Your task to perform on an android device: Show the shopping cart on amazon.com. Add "usb-c to usb-b" to the cart on amazon.com Image 0: 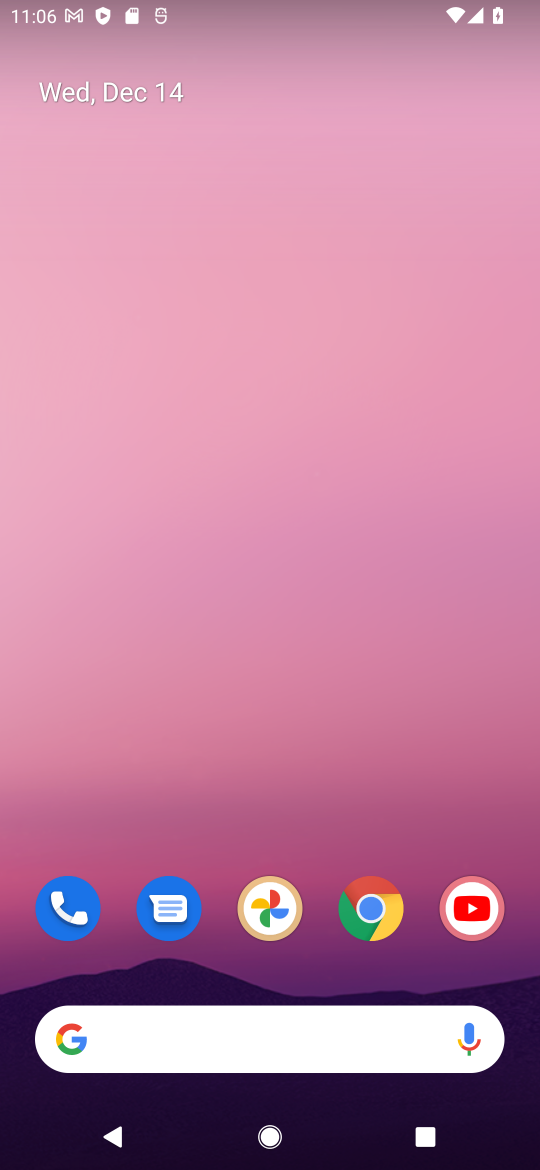
Step 0: click (362, 928)
Your task to perform on an android device: Show the shopping cart on amazon.com. Add "usb-c to usb-b" to the cart on amazon.com Image 1: 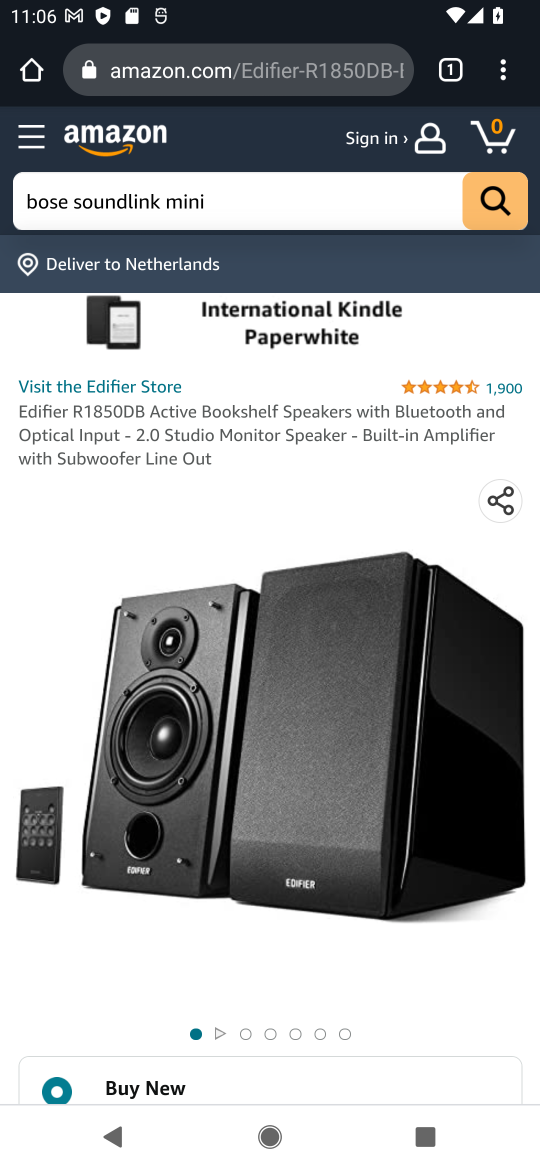
Step 1: click (498, 142)
Your task to perform on an android device: Show the shopping cart on amazon.com. Add "usb-c to usb-b" to the cart on amazon.com Image 2: 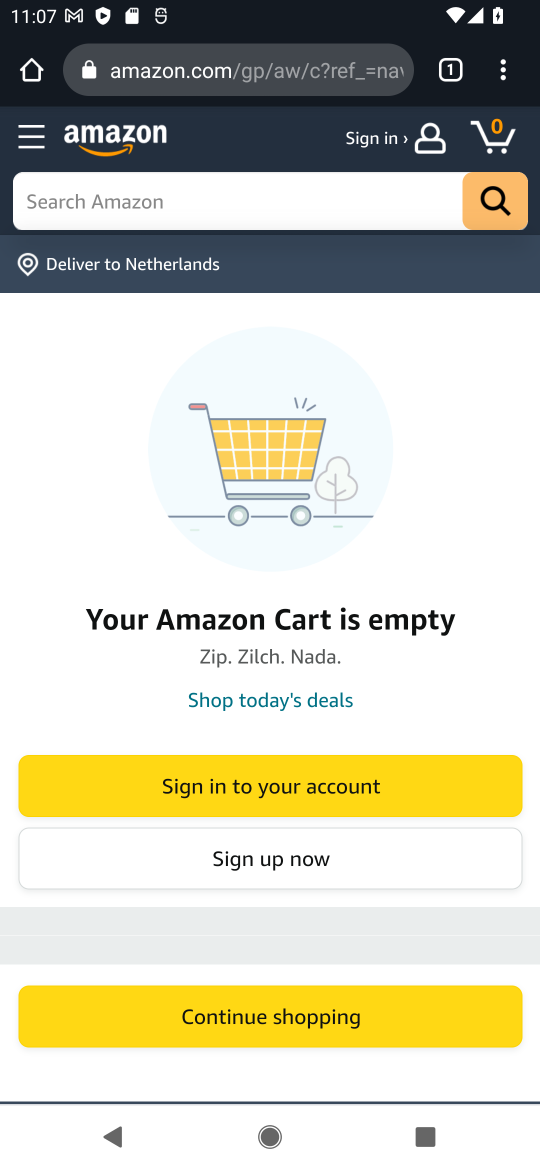
Step 2: click (117, 217)
Your task to perform on an android device: Show the shopping cart on amazon.com. Add "usb-c to usb-b" to the cart on amazon.com Image 3: 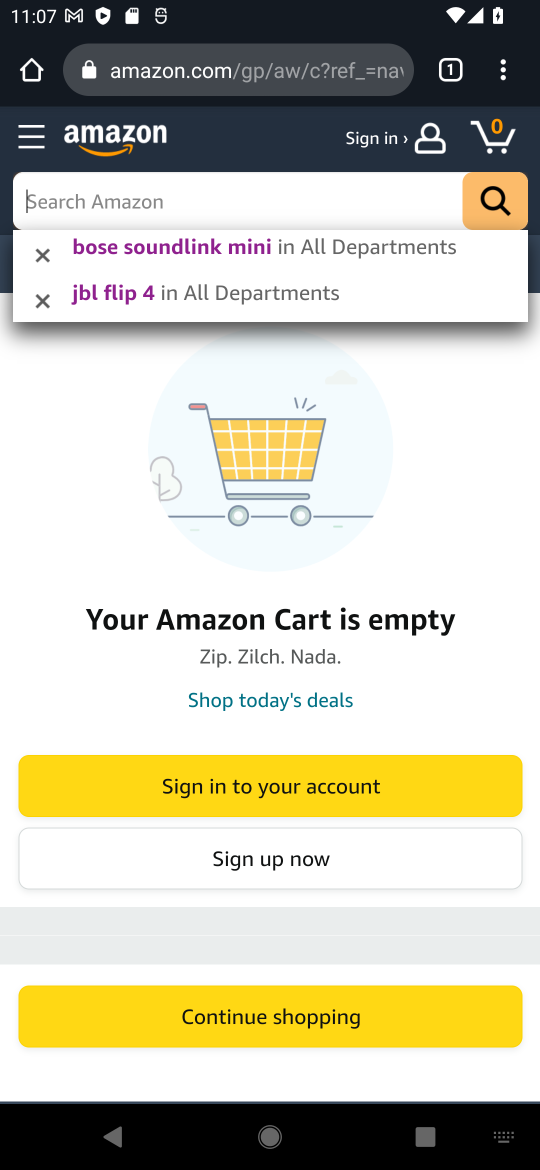
Step 3: type "usb-c to usb-b"
Your task to perform on an android device: Show the shopping cart on amazon.com. Add "usb-c to usb-b" to the cart on amazon.com Image 4: 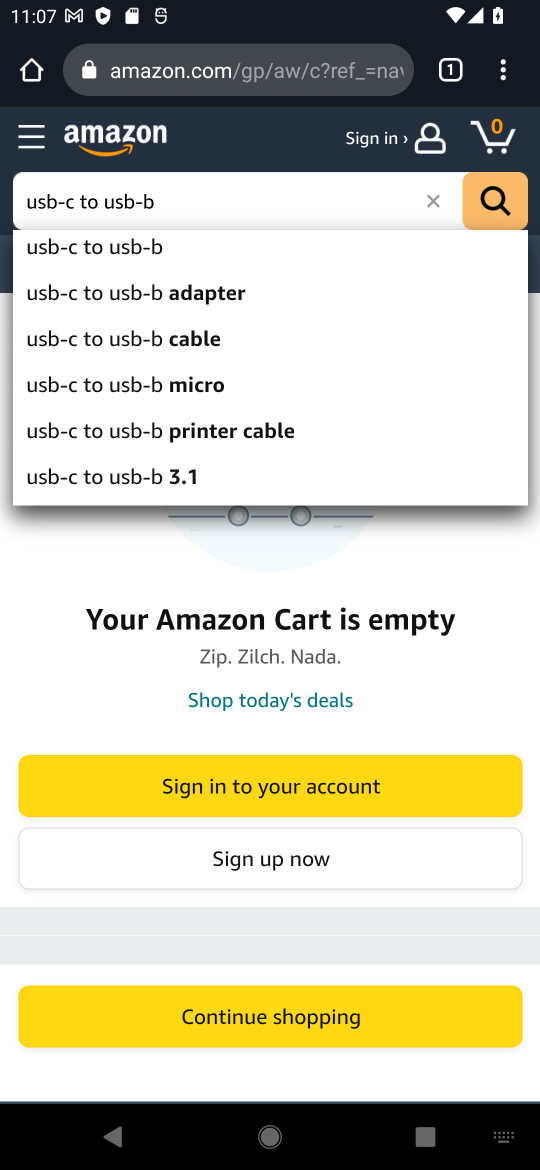
Step 4: click (47, 256)
Your task to perform on an android device: Show the shopping cart on amazon.com. Add "usb-c to usb-b" to the cart on amazon.com Image 5: 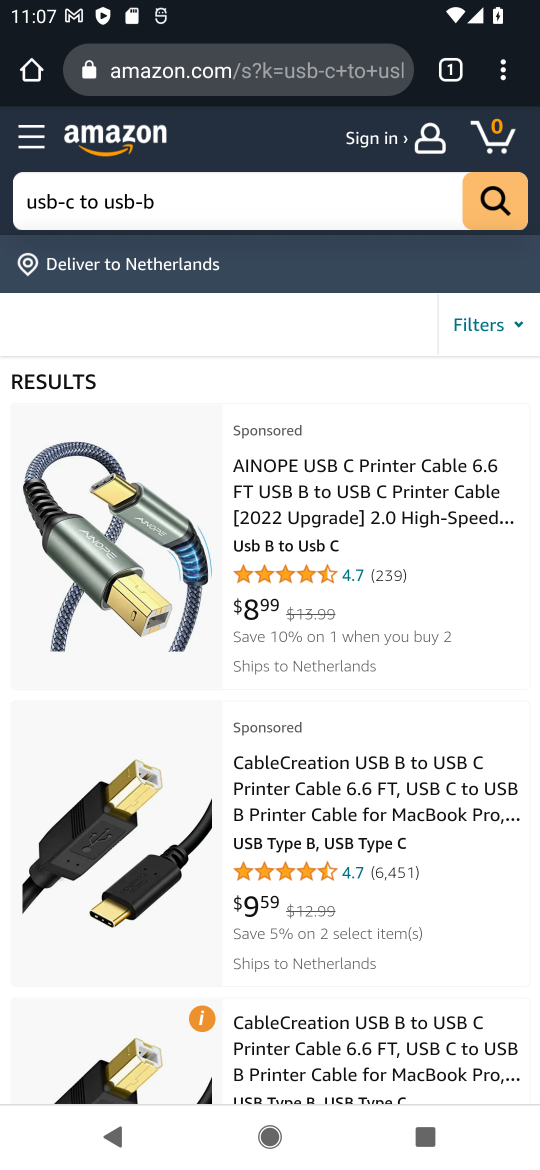
Step 5: drag from (67, 877) to (87, 572)
Your task to perform on an android device: Show the shopping cart on amazon.com. Add "usb-c to usb-b" to the cart on amazon.com Image 6: 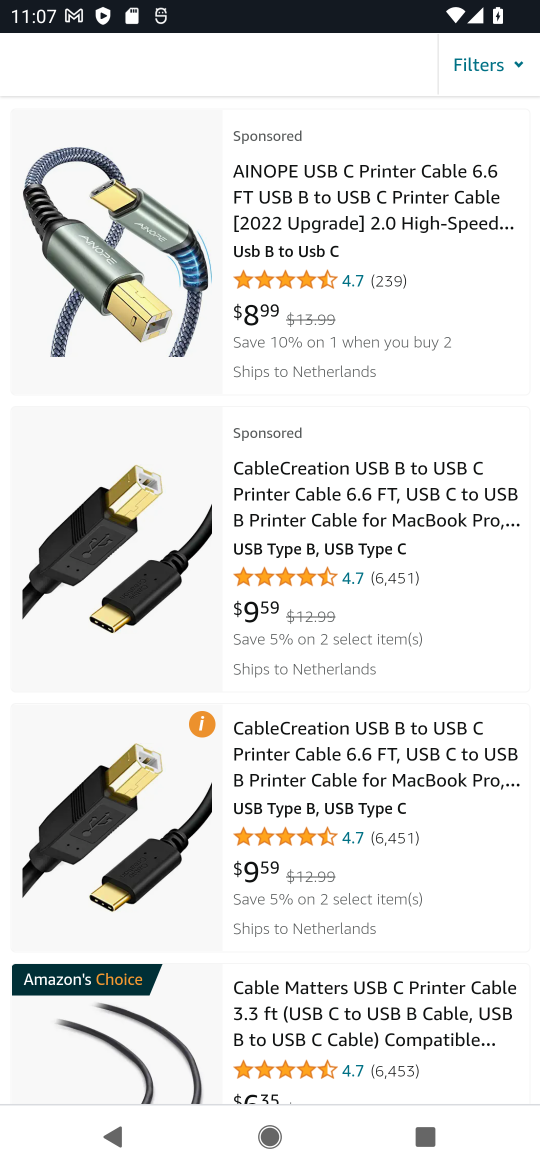
Step 6: drag from (120, 882) to (117, 550)
Your task to perform on an android device: Show the shopping cart on amazon.com. Add "usb-c to usb-b" to the cart on amazon.com Image 7: 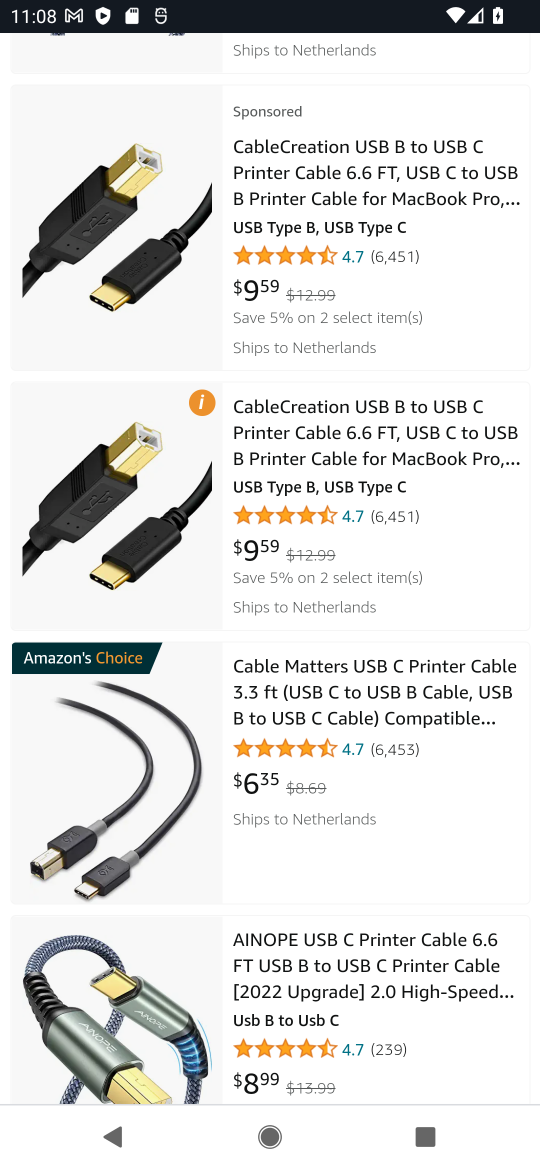
Step 7: click (310, 720)
Your task to perform on an android device: Show the shopping cart on amazon.com. Add "usb-c to usb-b" to the cart on amazon.com Image 8: 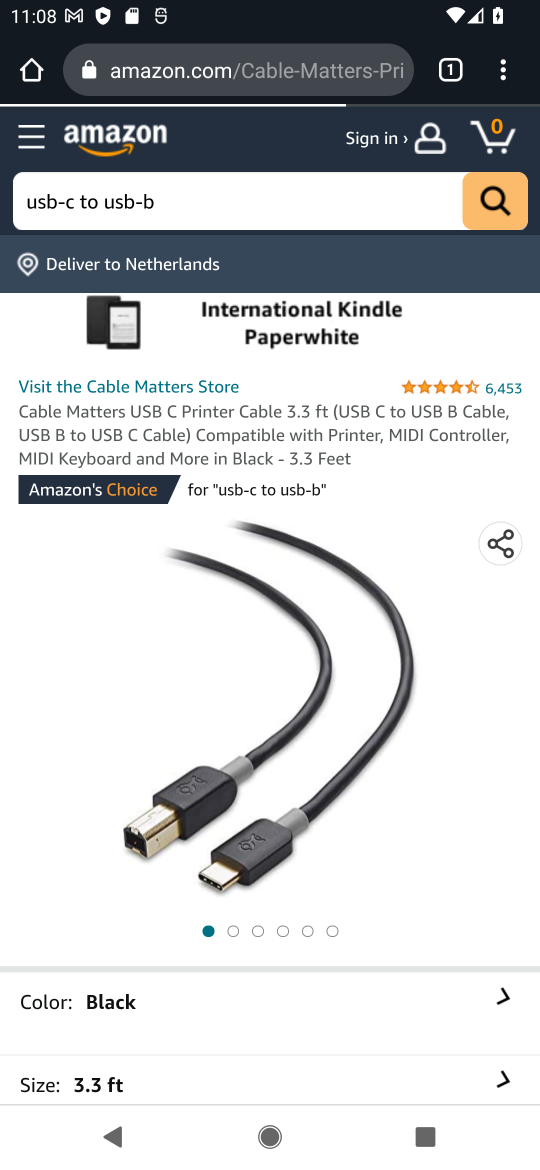
Step 8: drag from (270, 858) to (244, 383)
Your task to perform on an android device: Show the shopping cart on amazon.com. Add "usb-c to usb-b" to the cart on amazon.com Image 9: 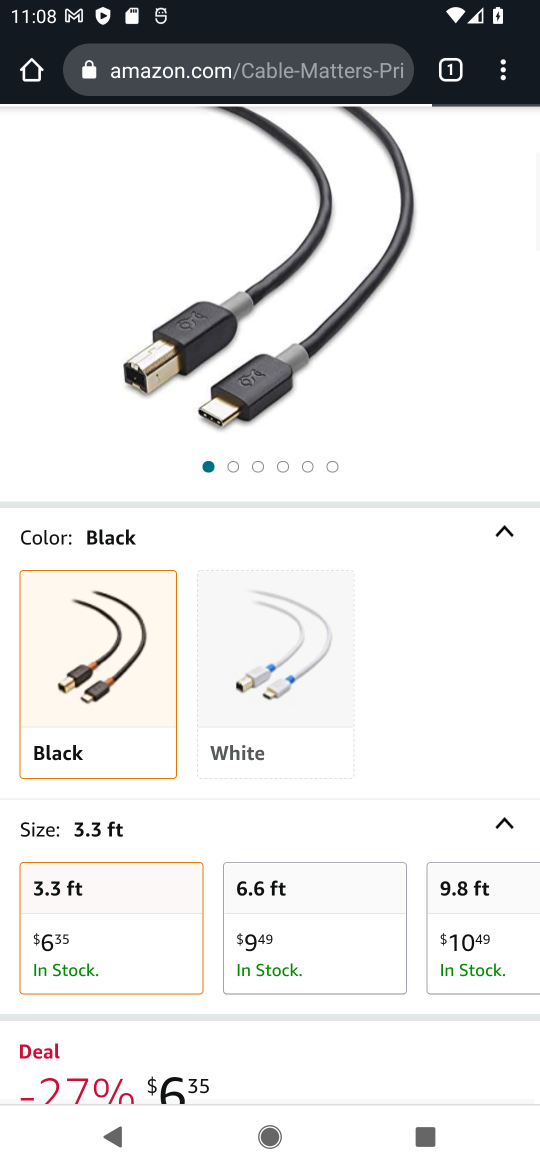
Step 9: drag from (239, 1025) to (209, 520)
Your task to perform on an android device: Show the shopping cart on amazon.com. Add "usb-c to usb-b" to the cart on amazon.com Image 10: 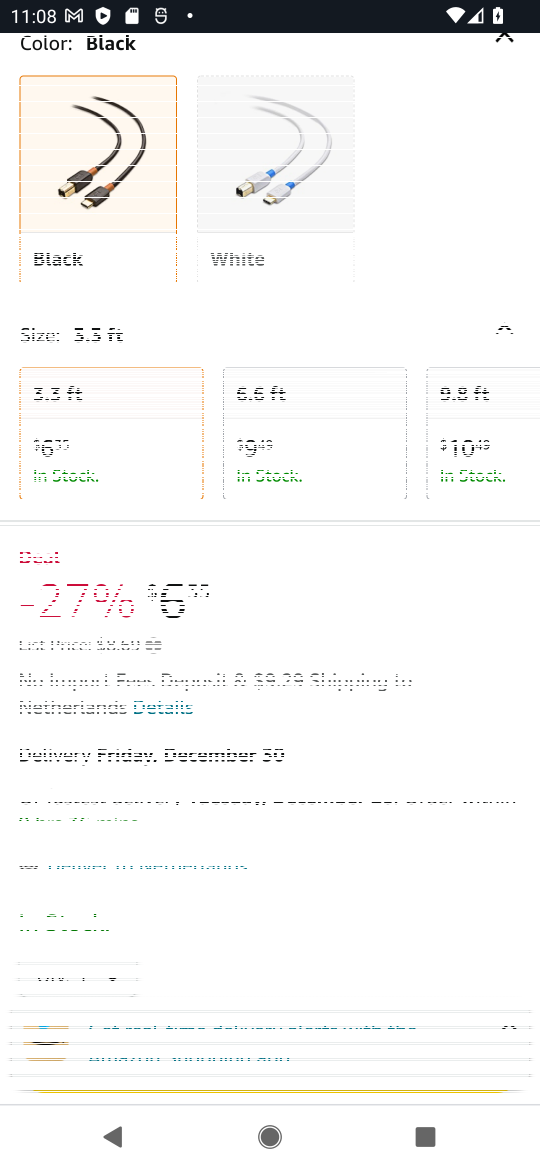
Step 10: drag from (293, 886) to (258, 441)
Your task to perform on an android device: Show the shopping cart on amazon.com. Add "usb-c to usb-b" to the cart on amazon.com Image 11: 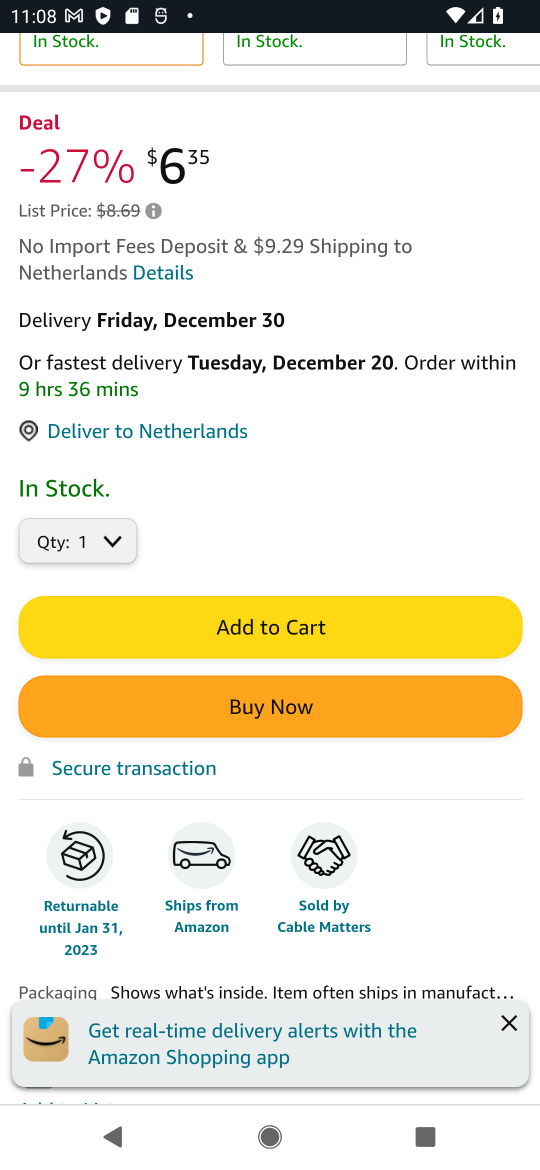
Step 11: click (233, 614)
Your task to perform on an android device: Show the shopping cart on amazon.com. Add "usb-c to usb-b" to the cart on amazon.com Image 12: 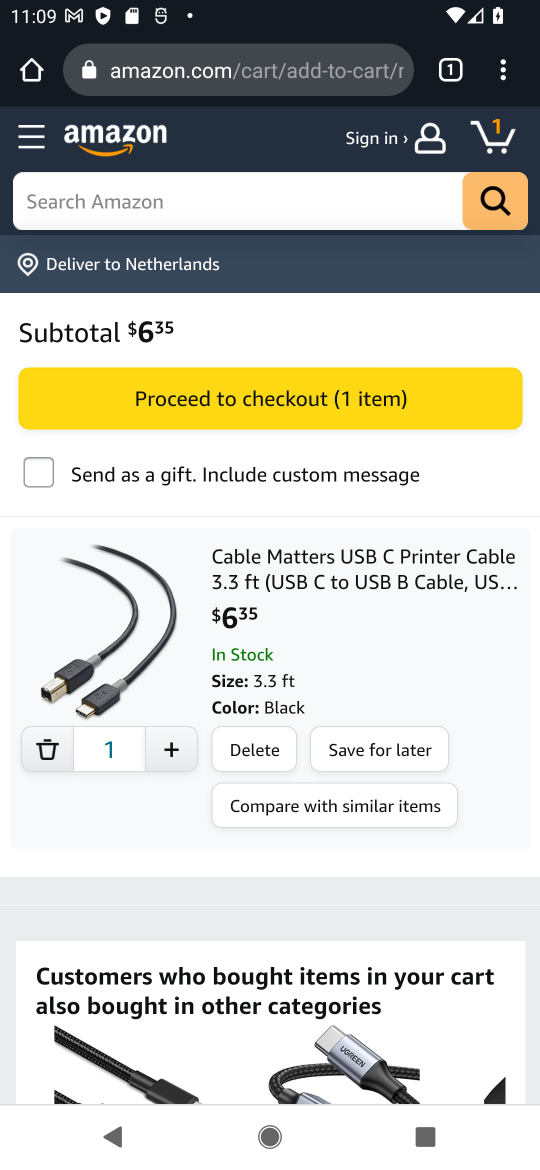
Step 12: task complete